Your task to perform on an android device: Is it going to rain today? Image 0: 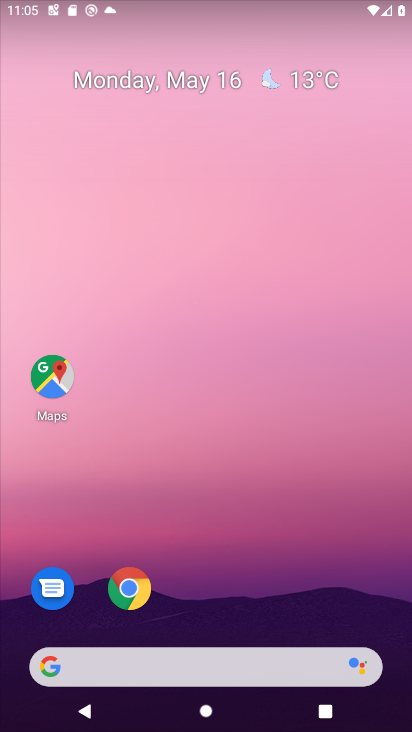
Step 0: click (315, 75)
Your task to perform on an android device: Is it going to rain today? Image 1: 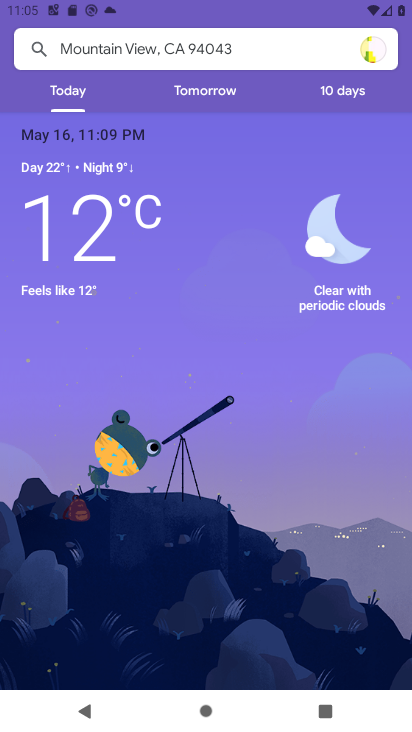
Step 1: click (79, 223)
Your task to perform on an android device: Is it going to rain today? Image 2: 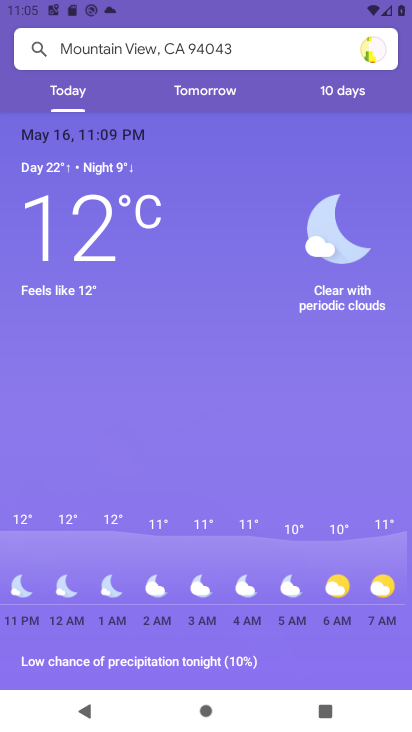
Step 2: task complete